Your task to perform on an android device: Search for Italian restaurants on Maps Image 0: 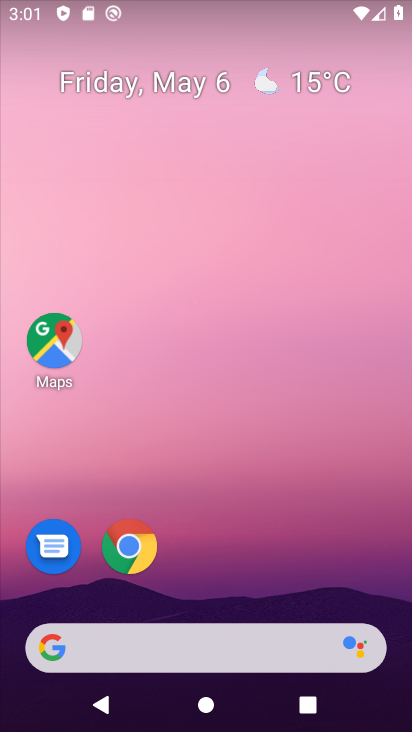
Step 0: click (52, 326)
Your task to perform on an android device: Search for Italian restaurants on Maps Image 1: 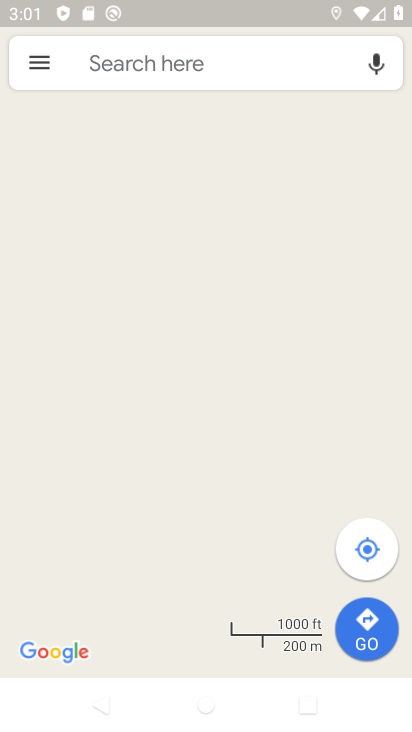
Step 1: click (233, 59)
Your task to perform on an android device: Search for Italian restaurants on Maps Image 2: 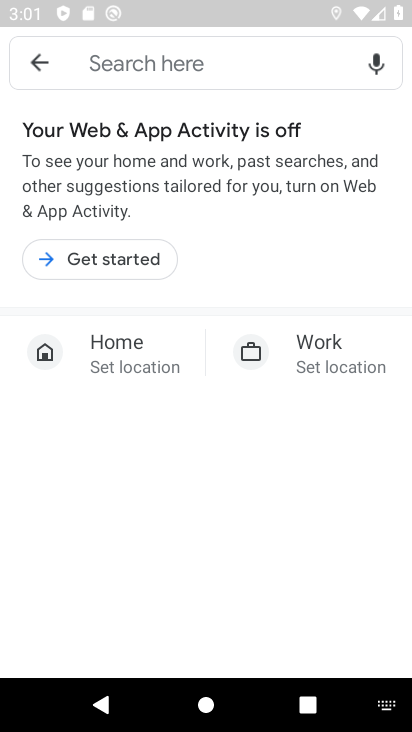
Step 2: click (233, 59)
Your task to perform on an android device: Search for Italian restaurants on Maps Image 3: 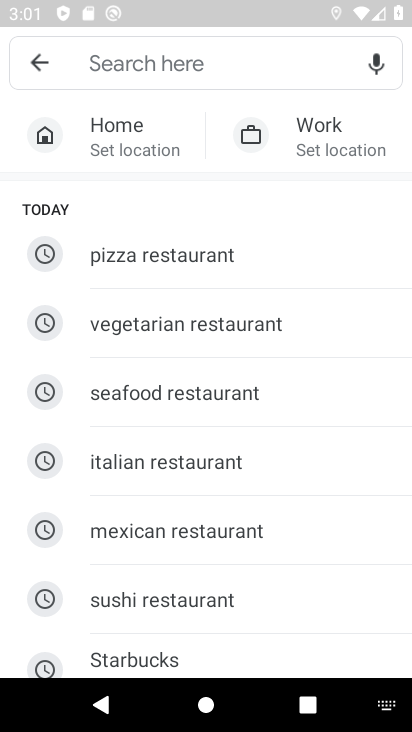
Step 3: click (260, 461)
Your task to perform on an android device: Search for Italian restaurants on Maps Image 4: 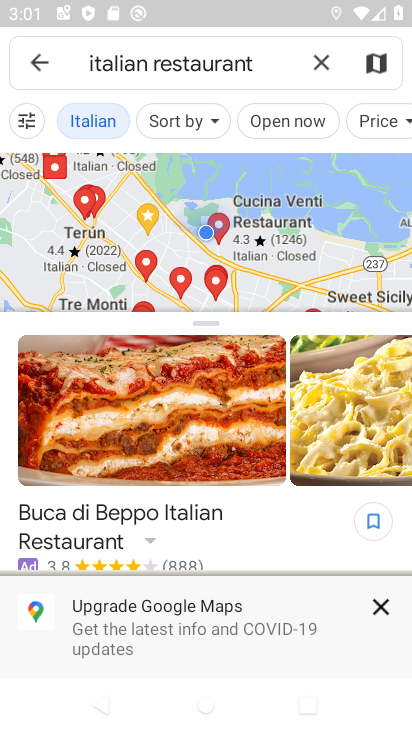
Step 4: task complete